Your task to perform on an android device: What's the weather today? Image 0: 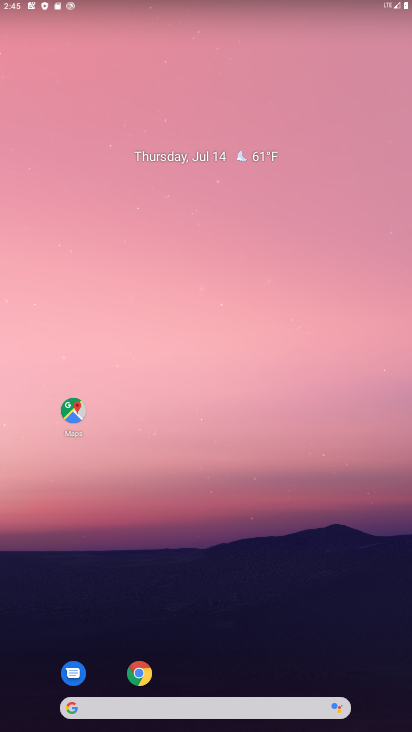
Step 0: click (255, 714)
Your task to perform on an android device: What's the weather today? Image 1: 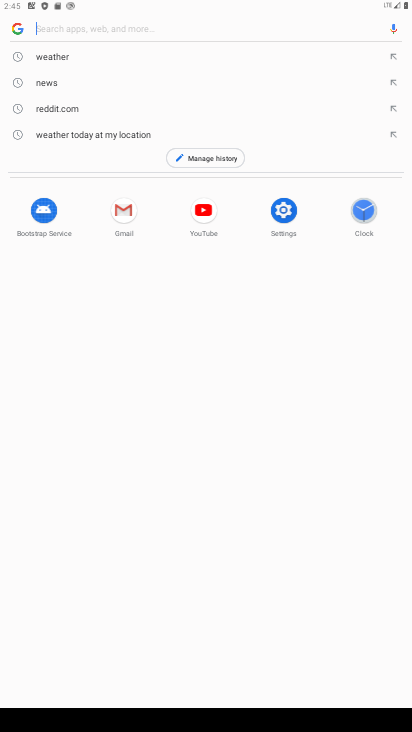
Step 1: click (99, 50)
Your task to perform on an android device: What's the weather today? Image 2: 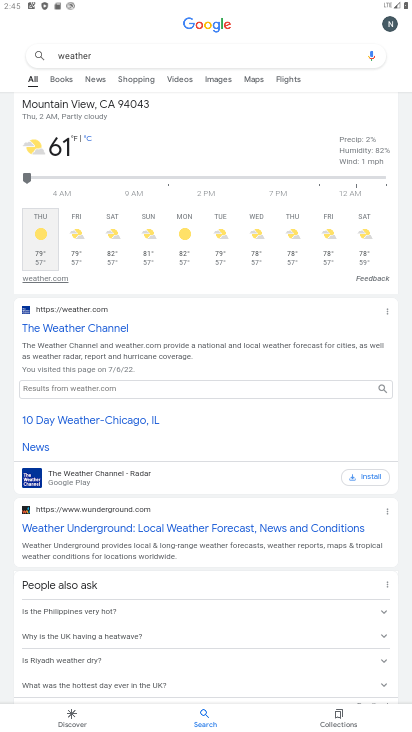
Step 2: task complete